Your task to perform on an android device: turn on wifi Image 0: 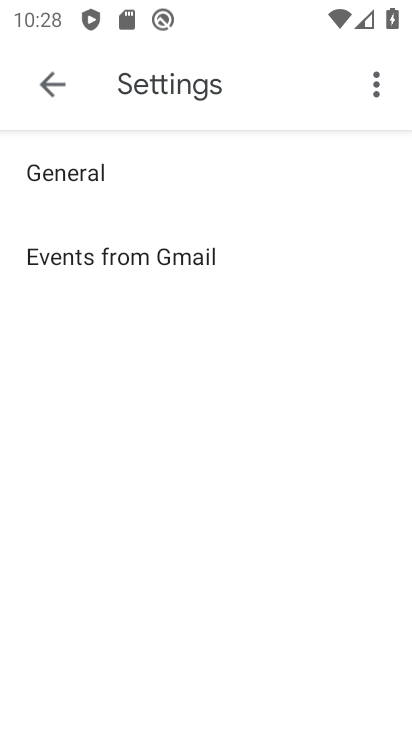
Step 0: press home button
Your task to perform on an android device: turn on wifi Image 1: 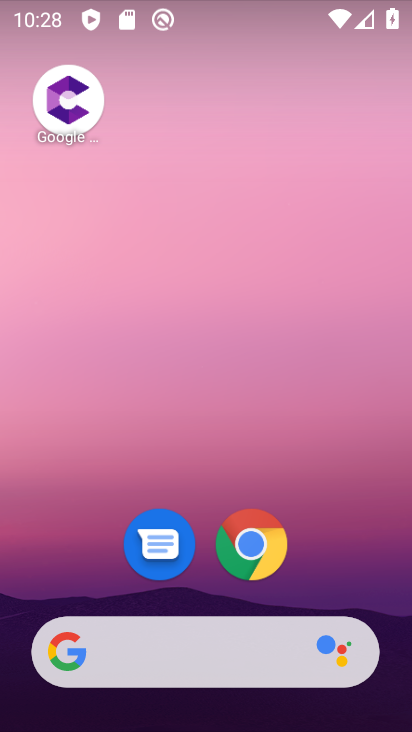
Step 1: drag from (345, 580) to (302, 74)
Your task to perform on an android device: turn on wifi Image 2: 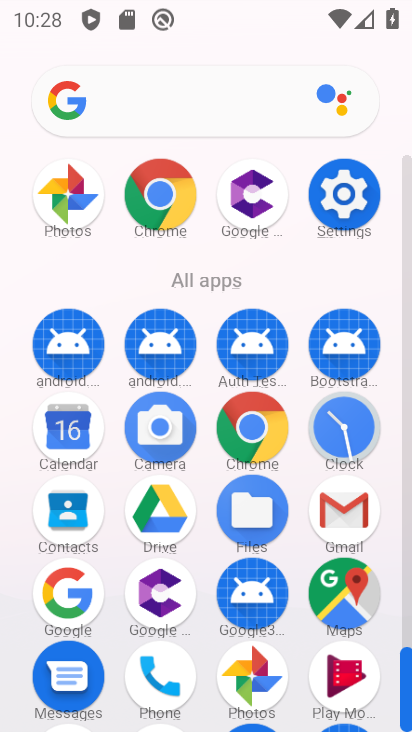
Step 2: click (344, 189)
Your task to perform on an android device: turn on wifi Image 3: 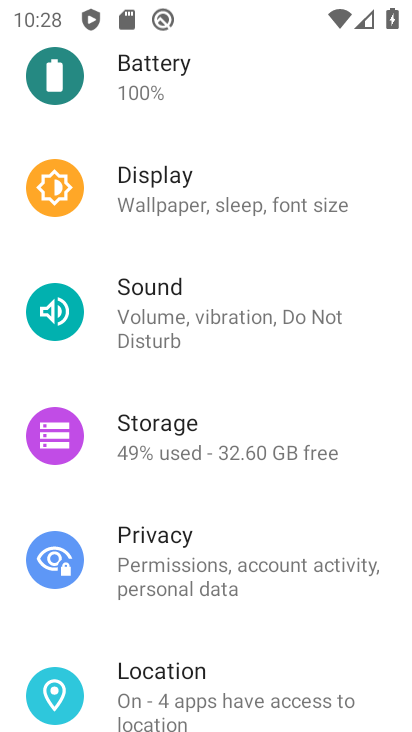
Step 3: drag from (237, 75) to (247, 731)
Your task to perform on an android device: turn on wifi Image 4: 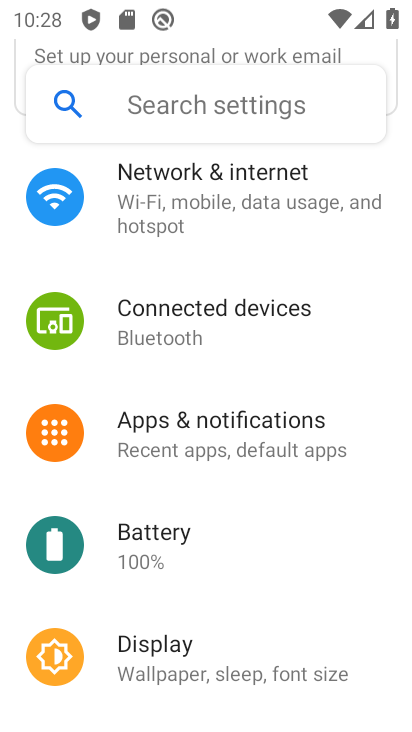
Step 4: click (248, 199)
Your task to perform on an android device: turn on wifi Image 5: 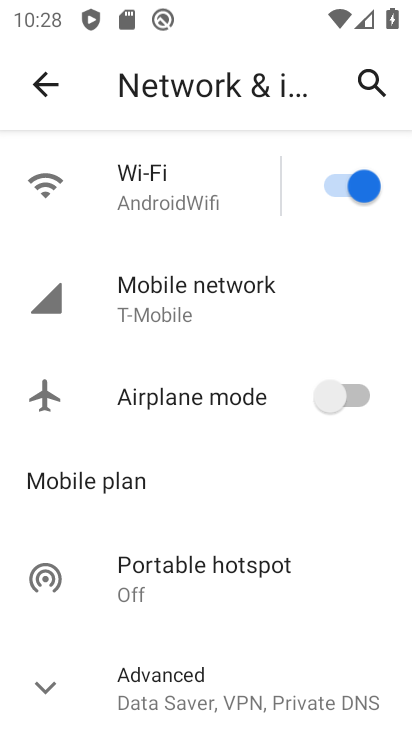
Step 5: task complete